Your task to perform on an android device: Open Google Chrome and open the bookmarks view Image 0: 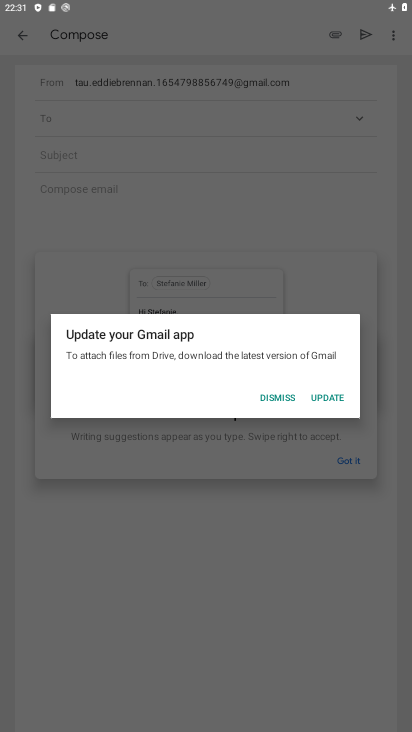
Step 0: press home button
Your task to perform on an android device: Open Google Chrome and open the bookmarks view Image 1: 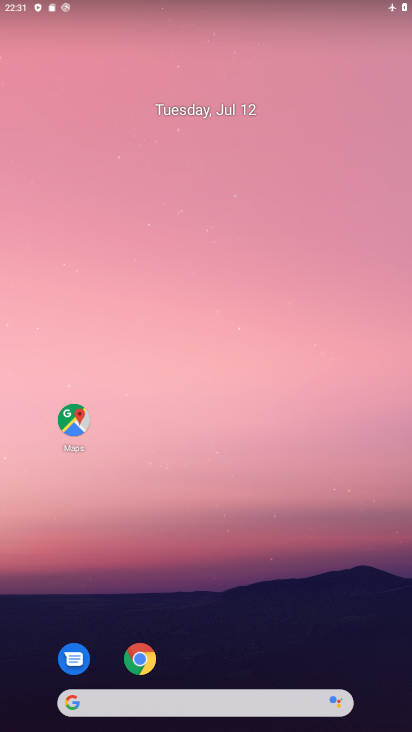
Step 1: drag from (184, 627) to (224, 175)
Your task to perform on an android device: Open Google Chrome and open the bookmarks view Image 2: 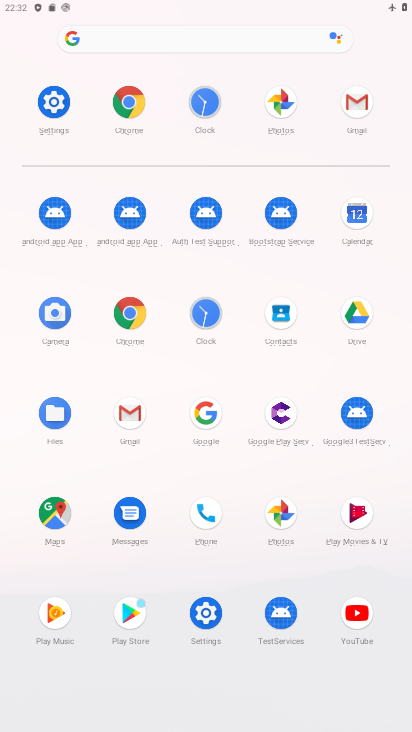
Step 2: click (126, 306)
Your task to perform on an android device: Open Google Chrome and open the bookmarks view Image 3: 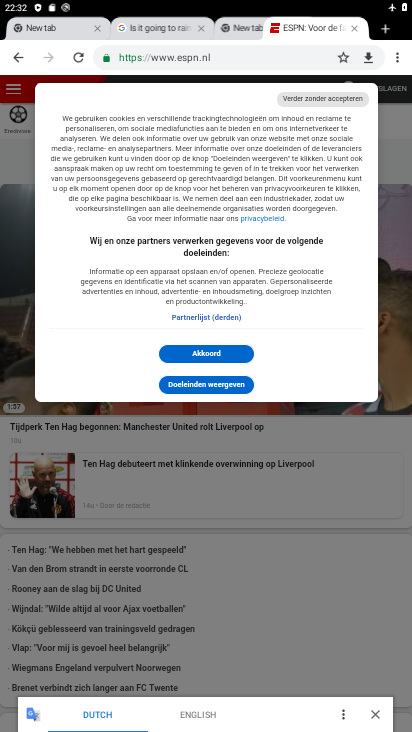
Step 3: click (390, 60)
Your task to perform on an android device: Open Google Chrome and open the bookmarks view Image 4: 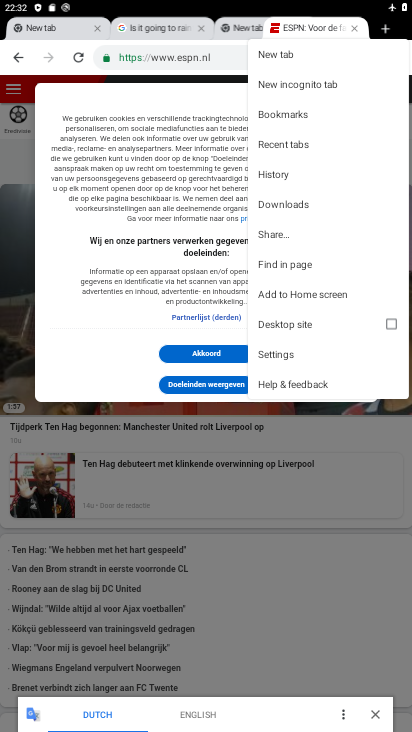
Step 4: click (280, 108)
Your task to perform on an android device: Open Google Chrome and open the bookmarks view Image 5: 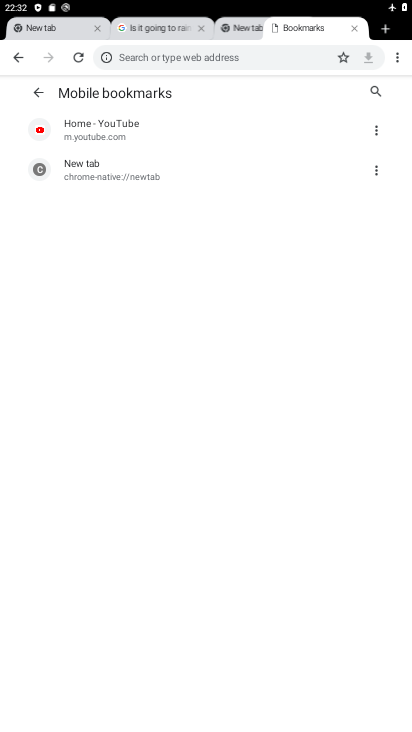
Step 5: task complete